Your task to perform on an android device: Go to calendar. Show me events next week Image 0: 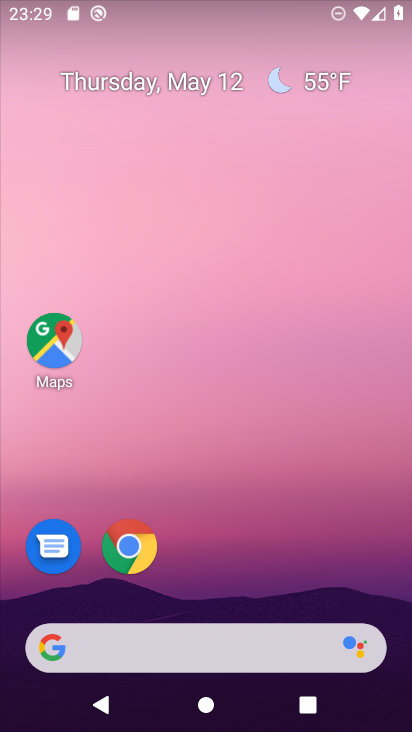
Step 0: drag from (188, 334) to (194, 105)
Your task to perform on an android device: Go to calendar. Show me events next week Image 1: 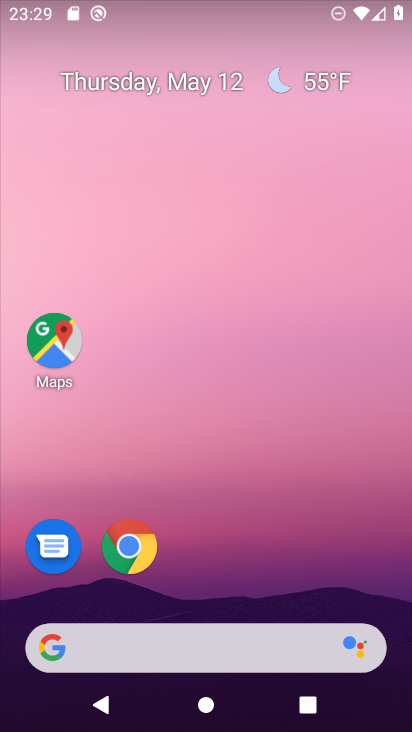
Step 1: drag from (198, 560) to (276, 142)
Your task to perform on an android device: Go to calendar. Show me events next week Image 2: 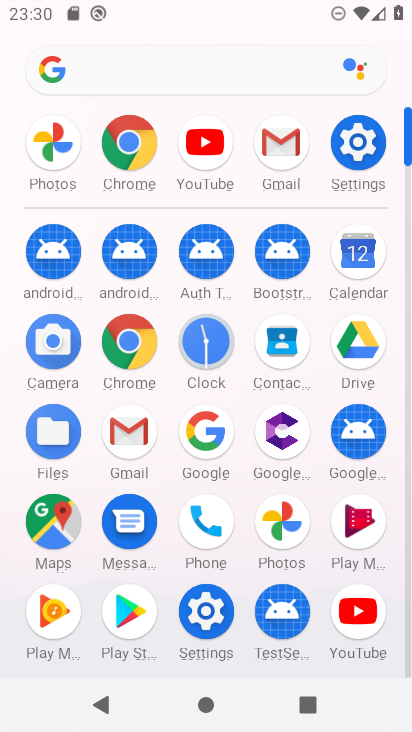
Step 2: click (361, 257)
Your task to perform on an android device: Go to calendar. Show me events next week Image 3: 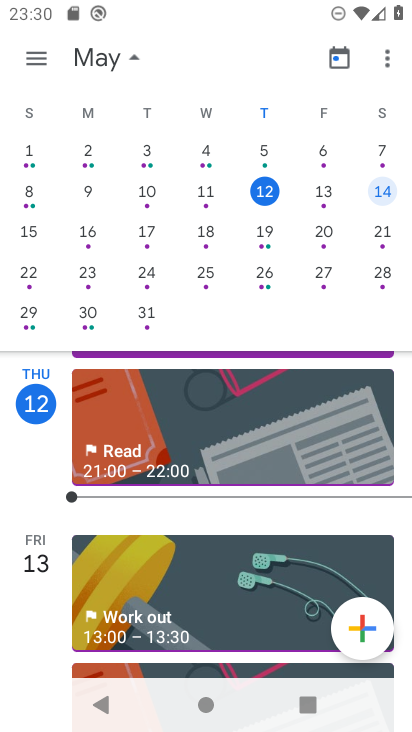
Step 3: click (126, 52)
Your task to perform on an android device: Go to calendar. Show me events next week Image 4: 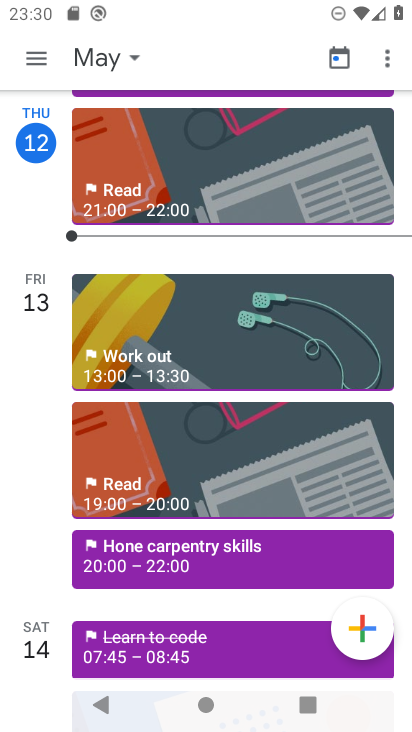
Step 4: click (121, 58)
Your task to perform on an android device: Go to calendar. Show me events next week Image 5: 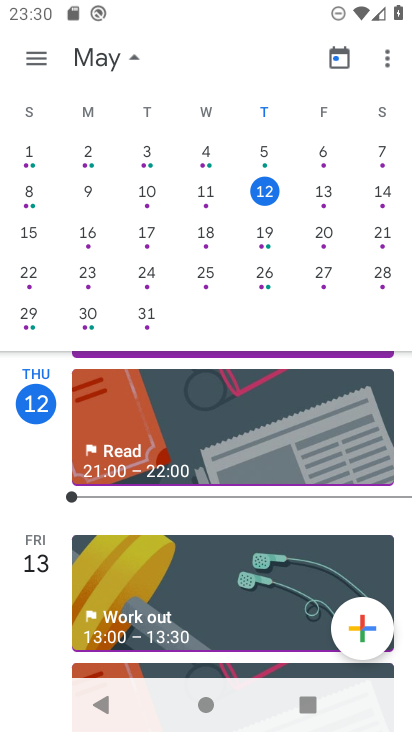
Step 5: drag from (397, 217) to (33, 208)
Your task to perform on an android device: Go to calendar. Show me events next week Image 6: 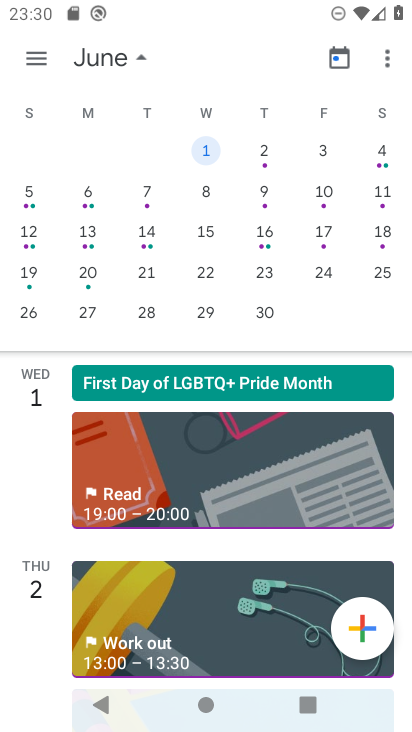
Step 6: drag from (52, 213) to (375, 193)
Your task to perform on an android device: Go to calendar. Show me events next week Image 7: 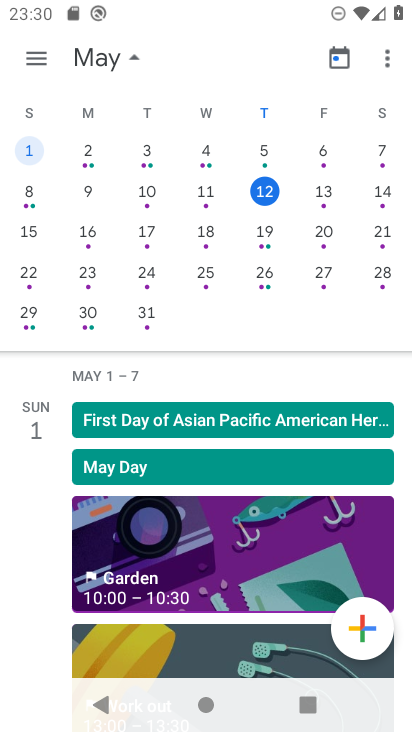
Step 7: click (54, 239)
Your task to perform on an android device: Go to calendar. Show me events next week Image 8: 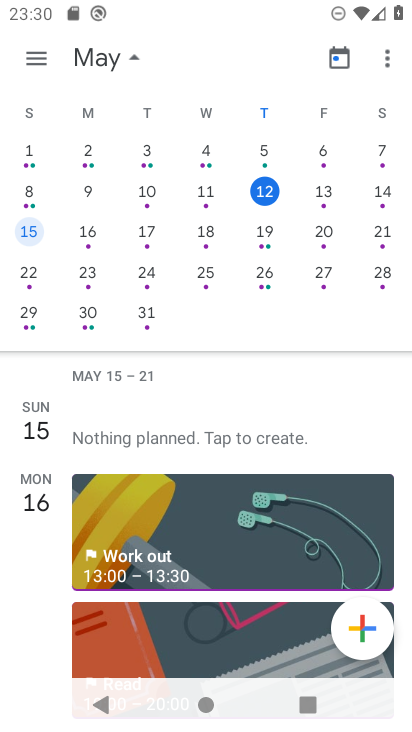
Step 8: click (80, 233)
Your task to perform on an android device: Go to calendar. Show me events next week Image 9: 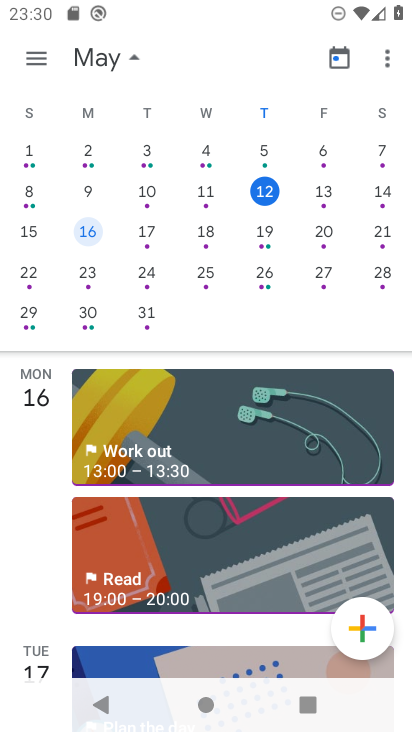
Step 9: click (148, 232)
Your task to perform on an android device: Go to calendar. Show me events next week Image 10: 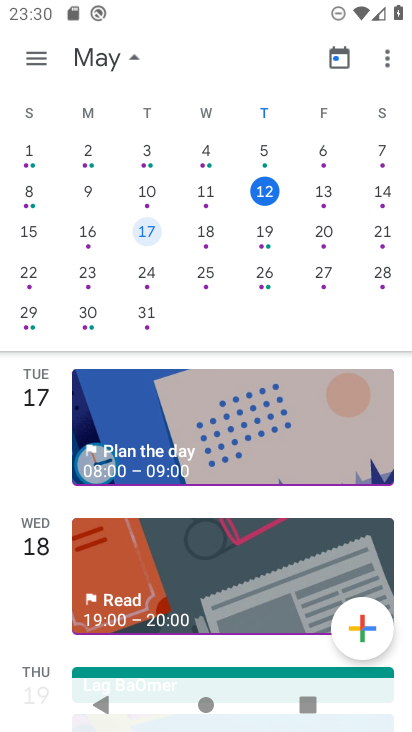
Step 10: click (216, 230)
Your task to perform on an android device: Go to calendar. Show me events next week Image 11: 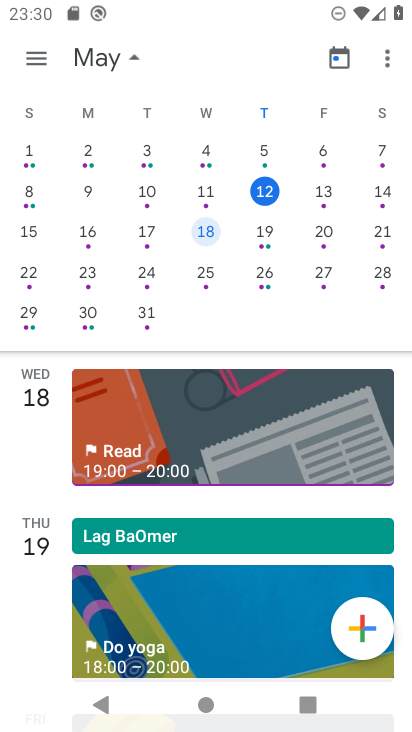
Step 11: click (262, 230)
Your task to perform on an android device: Go to calendar. Show me events next week Image 12: 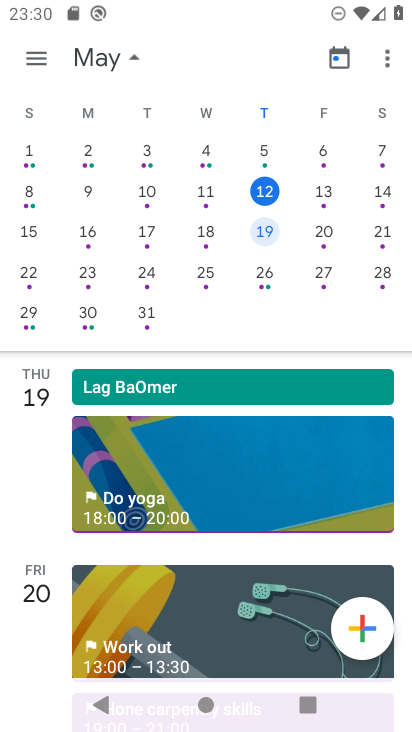
Step 12: click (315, 221)
Your task to perform on an android device: Go to calendar. Show me events next week Image 13: 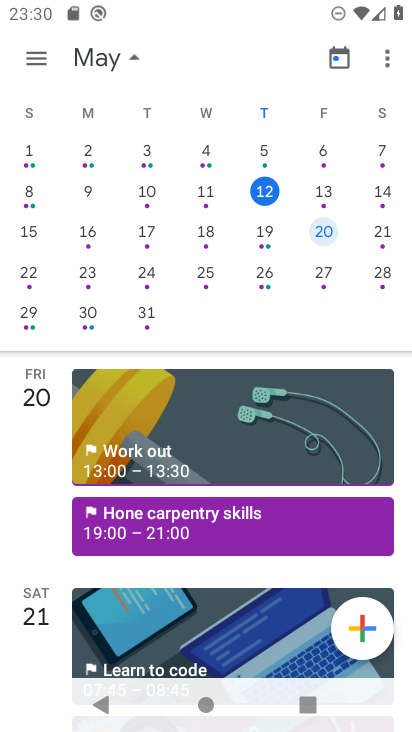
Step 13: task complete